Your task to perform on an android device: Open battery settings Image 0: 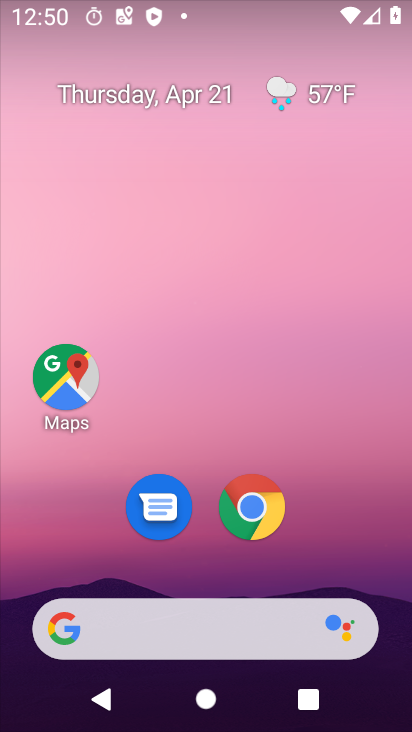
Step 0: drag from (216, 461) to (222, 231)
Your task to perform on an android device: Open battery settings Image 1: 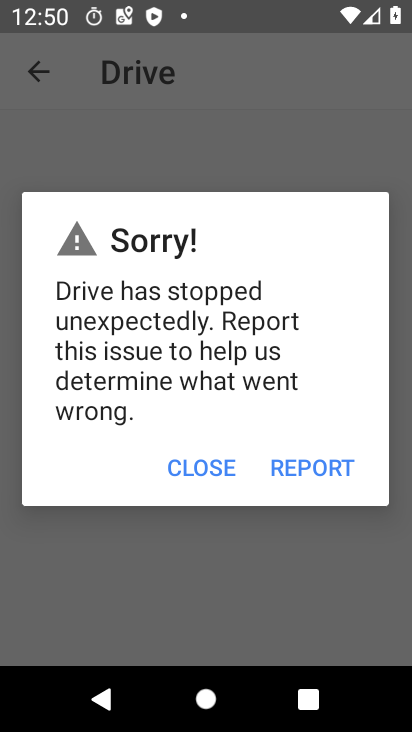
Step 1: press home button
Your task to perform on an android device: Open battery settings Image 2: 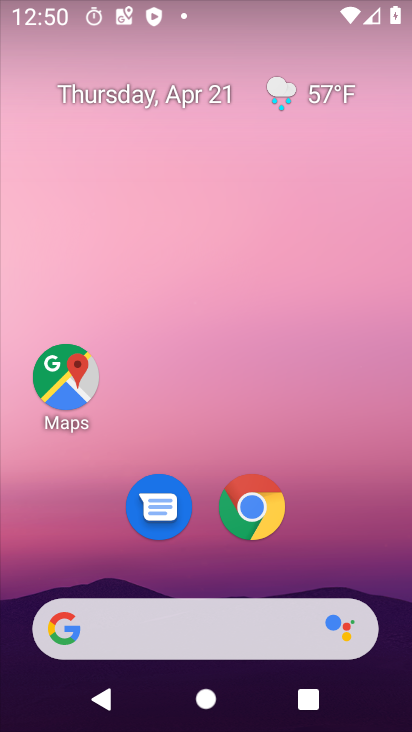
Step 2: drag from (195, 591) to (244, 300)
Your task to perform on an android device: Open battery settings Image 3: 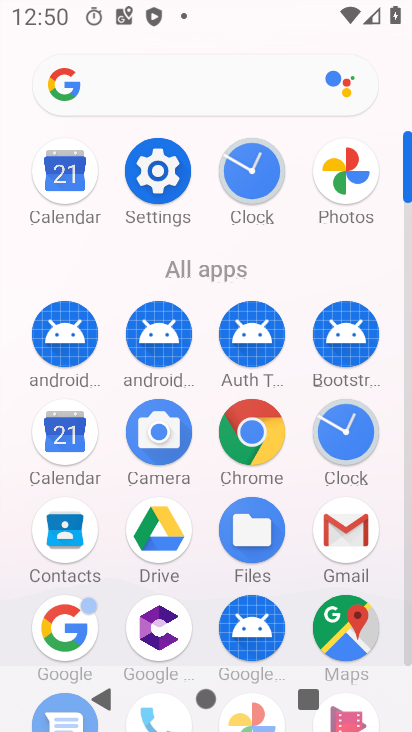
Step 3: click (156, 162)
Your task to perform on an android device: Open battery settings Image 4: 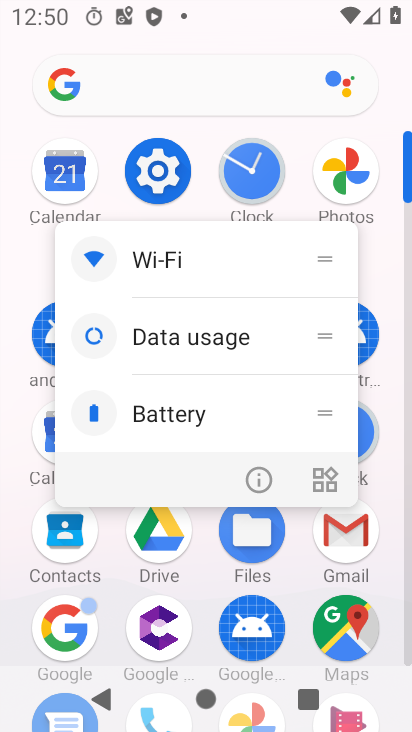
Step 4: click (257, 473)
Your task to perform on an android device: Open battery settings Image 5: 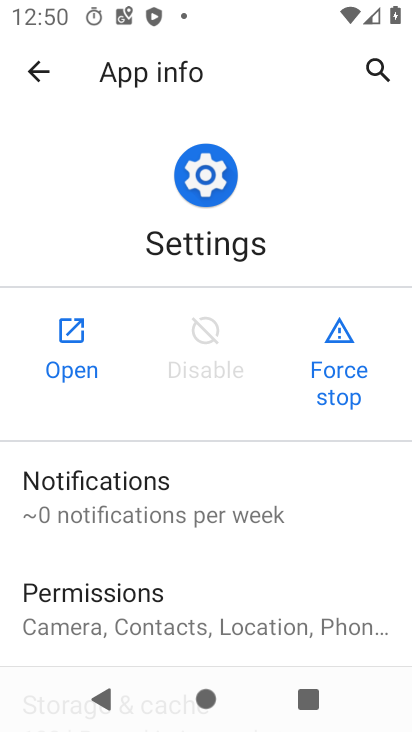
Step 5: click (74, 364)
Your task to perform on an android device: Open battery settings Image 6: 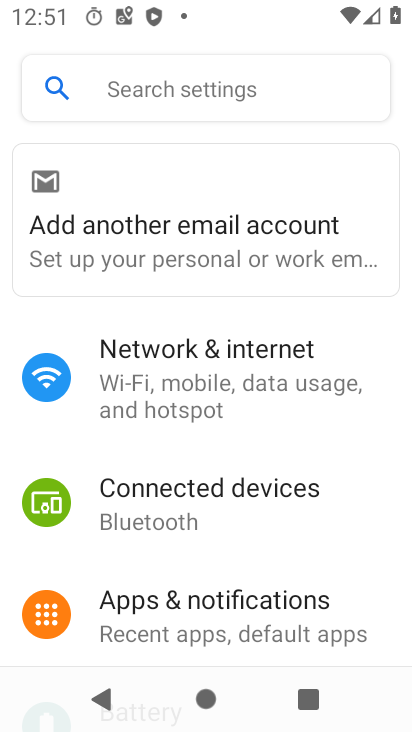
Step 6: drag from (212, 561) to (256, 215)
Your task to perform on an android device: Open battery settings Image 7: 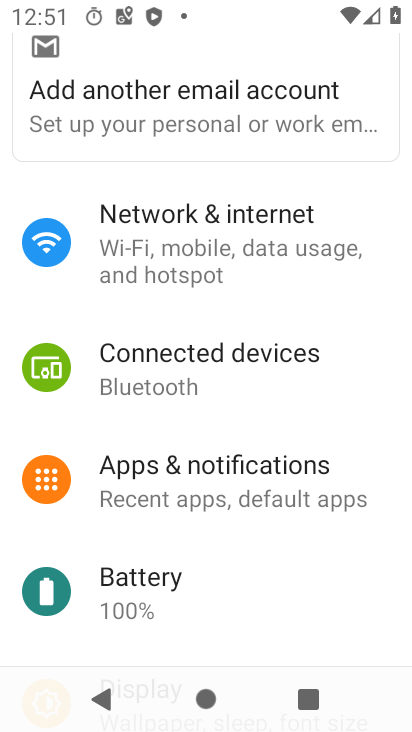
Step 7: click (244, 578)
Your task to perform on an android device: Open battery settings Image 8: 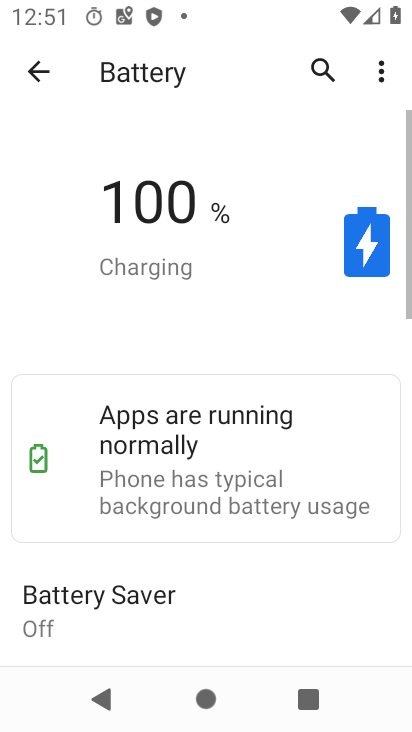
Step 8: task complete